Your task to perform on an android device: toggle notification dots Image 0: 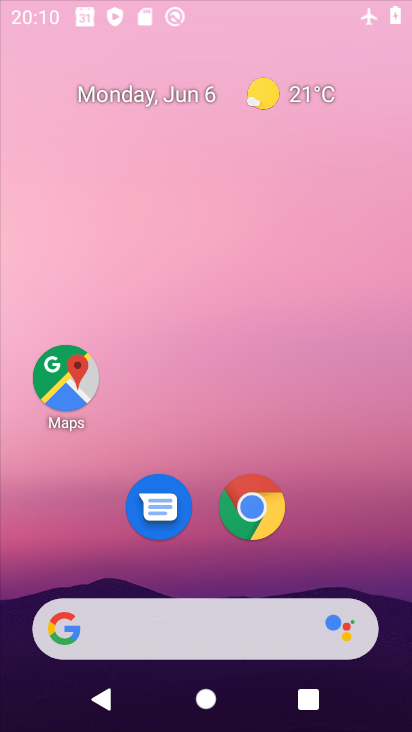
Step 0: drag from (192, 33) to (100, 8)
Your task to perform on an android device: toggle notification dots Image 1: 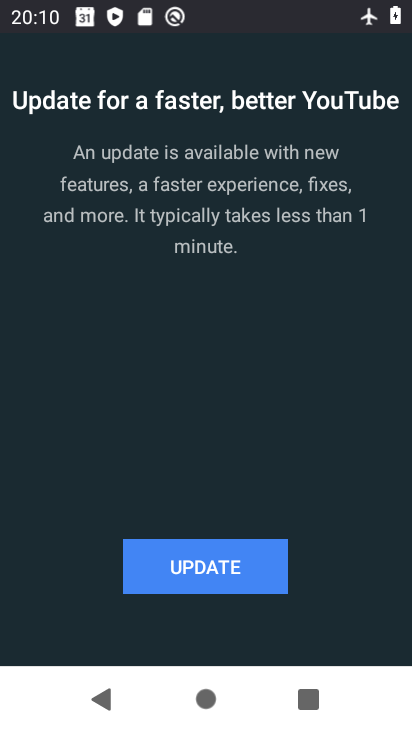
Step 1: press back button
Your task to perform on an android device: toggle notification dots Image 2: 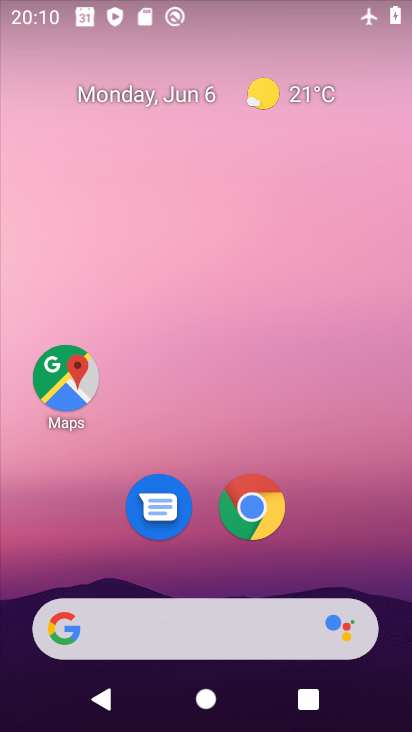
Step 2: drag from (170, 587) to (153, 77)
Your task to perform on an android device: toggle notification dots Image 3: 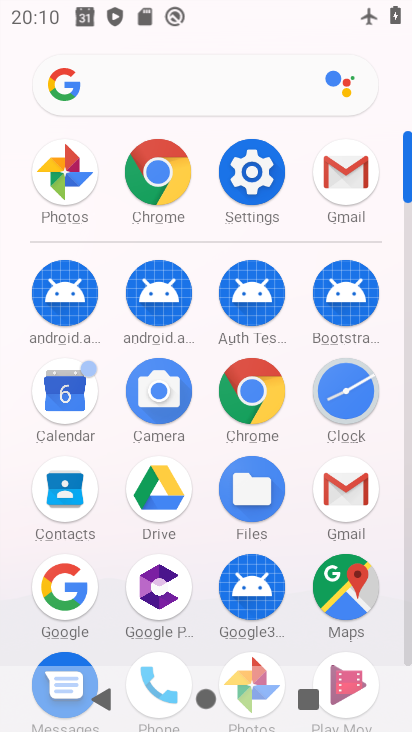
Step 3: click (252, 181)
Your task to perform on an android device: toggle notification dots Image 4: 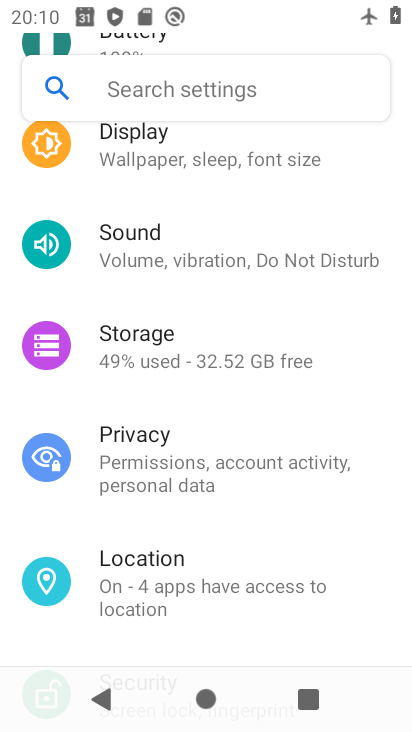
Step 4: drag from (229, 271) to (218, 611)
Your task to perform on an android device: toggle notification dots Image 5: 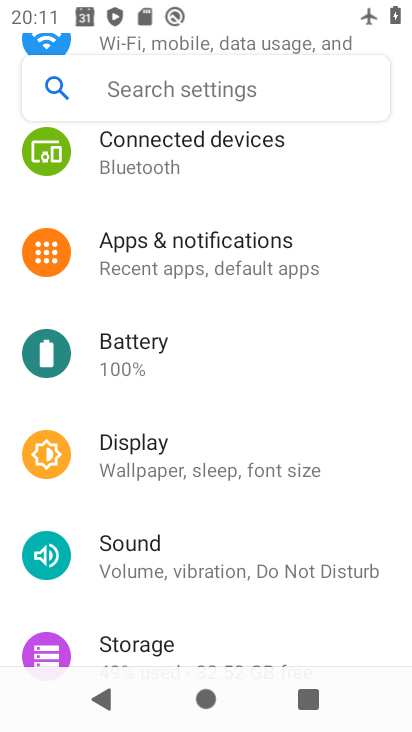
Step 5: click (190, 249)
Your task to perform on an android device: toggle notification dots Image 6: 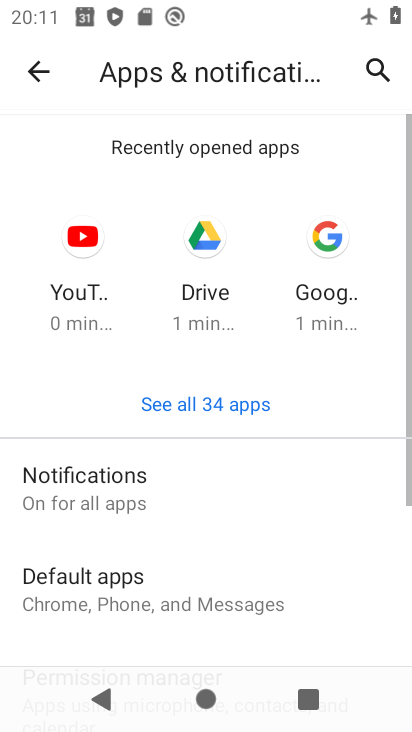
Step 6: drag from (160, 644) to (193, 241)
Your task to perform on an android device: toggle notification dots Image 7: 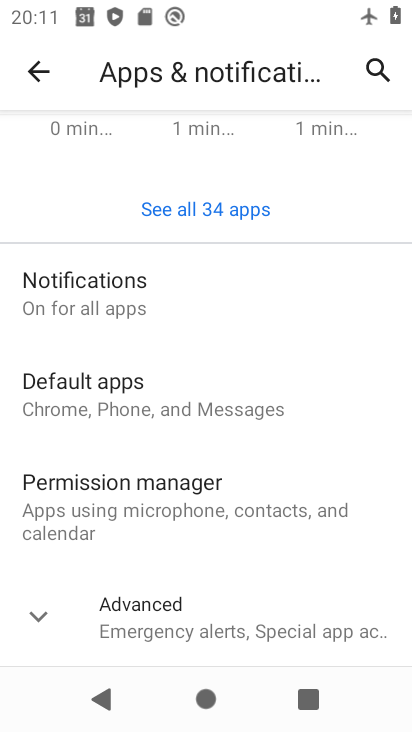
Step 7: click (163, 651)
Your task to perform on an android device: toggle notification dots Image 8: 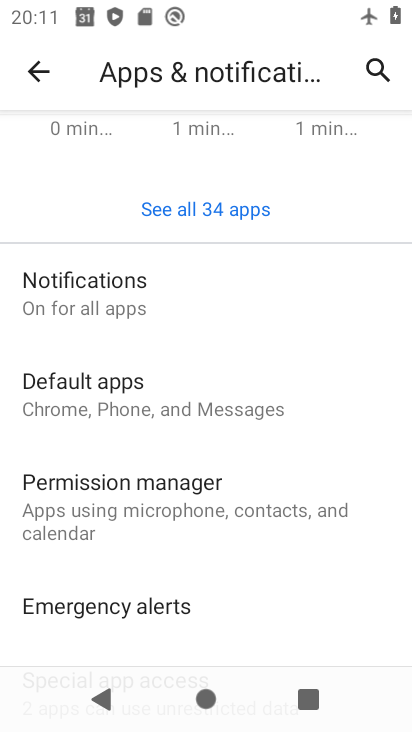
Step 8: click (62, 310)
Your task to perform on an android device: toggle notification dots Image 9: 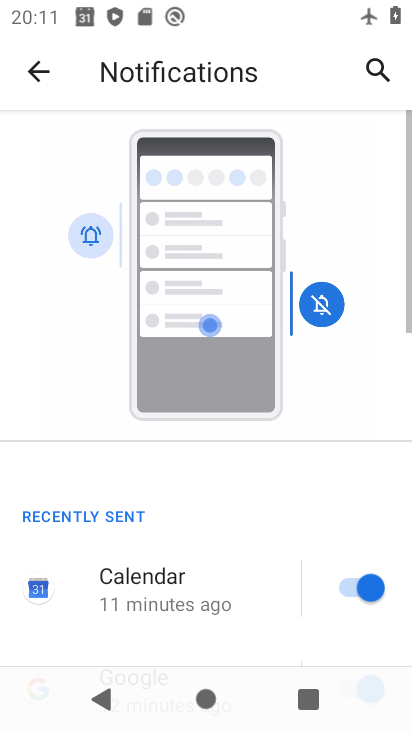
Step 9: drag from (221, 596) to (252, 75)
Your task to perform on an android device: toggle notification dots Image 10: 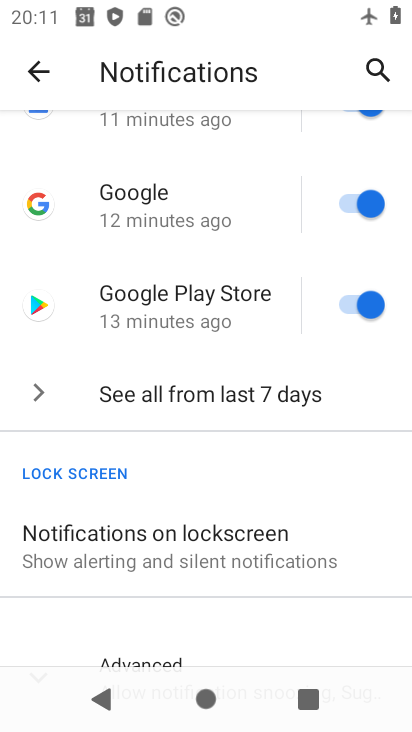
Step 10: drag from (246, 521) to (246, 133)
Your task to perform on an android device: toggle notification dots Image 11: 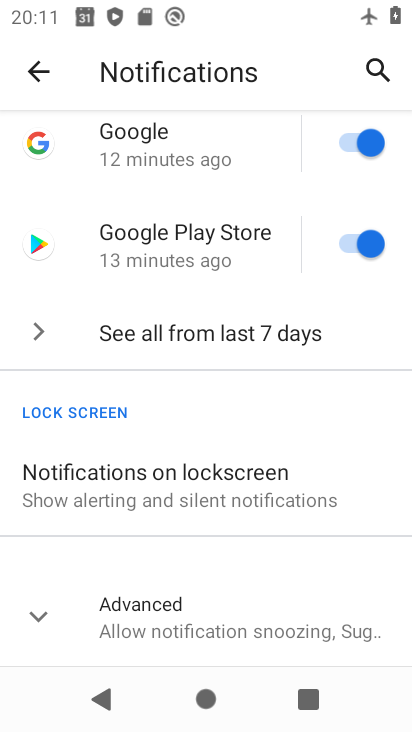
Step 11: click (169, 616)
Your task to perform on an android device: toggle notification dots Image 12: 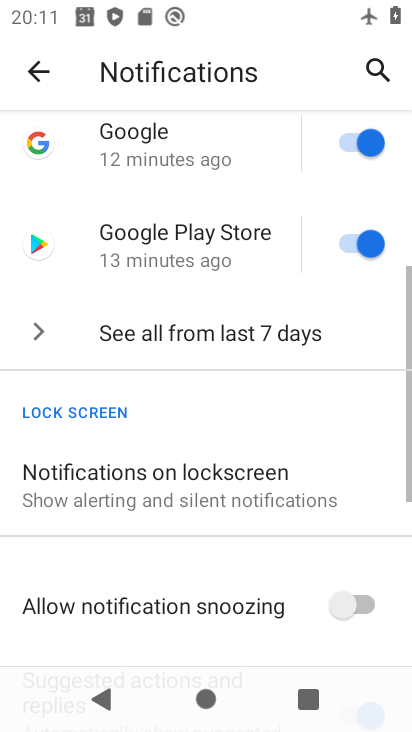
Step 12: drag from (168, 617) to (191, 80)
Your task to perform on an android device: toggle notification dots Image 13: 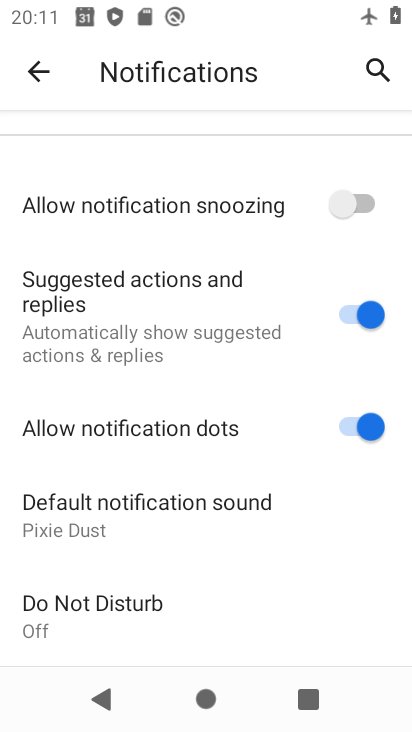
Step 13: click (345, 437)
Your task to perform on an android device: toggle notification dots Image 14: 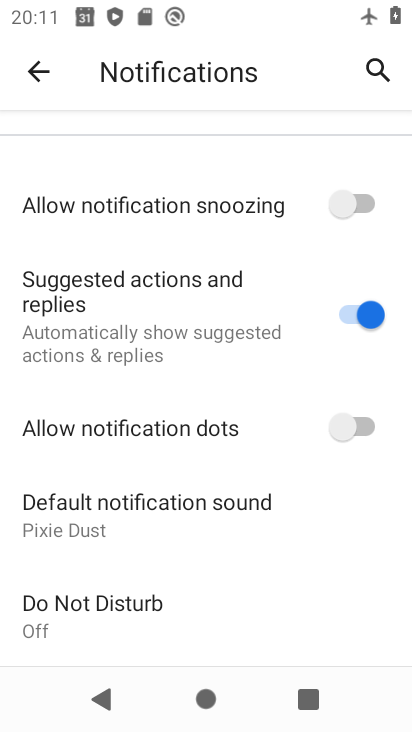
Step 14: task complete